Your task to perform on an android device: Go to sound settings Image 0: 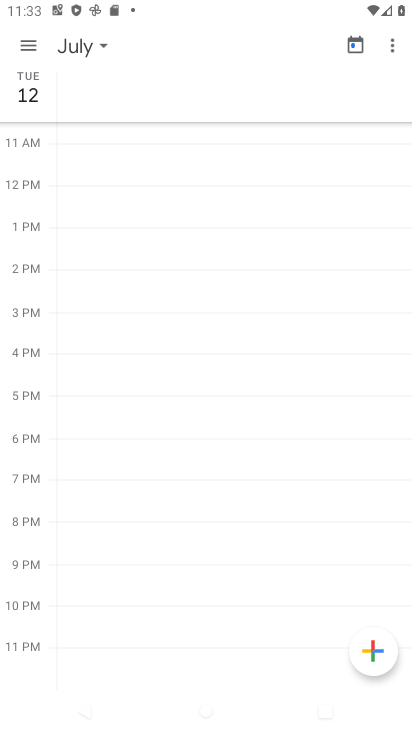
Step 0: press home button
Your task to perform on an android device: Go to sound settings Image 1: 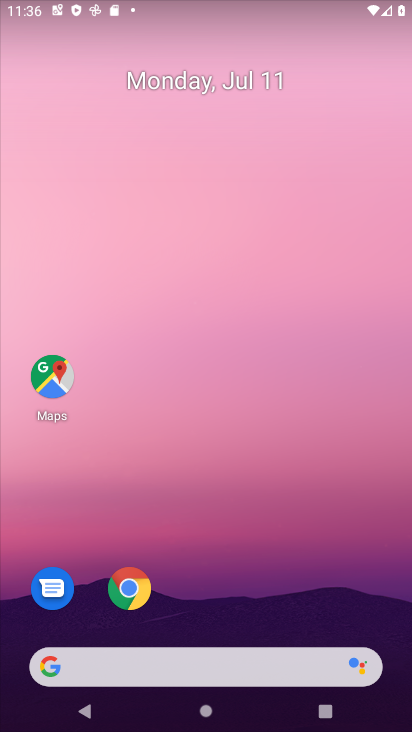
Step 1: drag from (120, 485) to (250, 15)
Your task to perform on an android device: Go to sound settings Image 2: 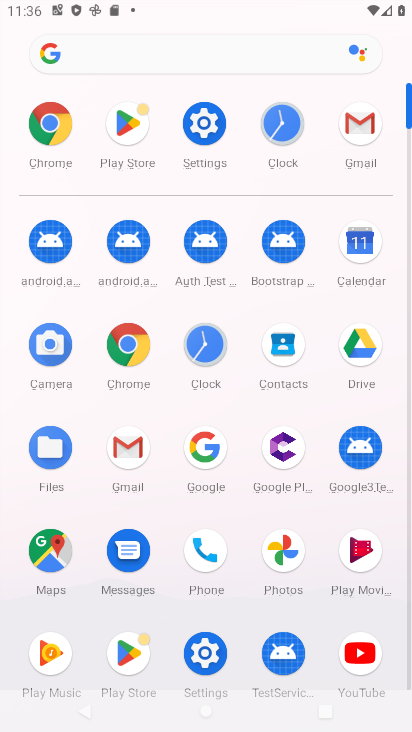
Step 2: click (216, 137)
Your task to perform on an android device: Go to sound settings Image 3: 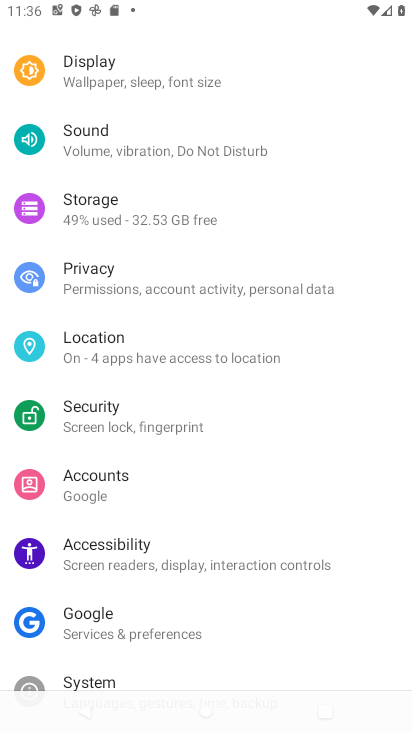
Step 3: click (131, 146)
Your task to perform on an android device: Go to sound settings Image 4: 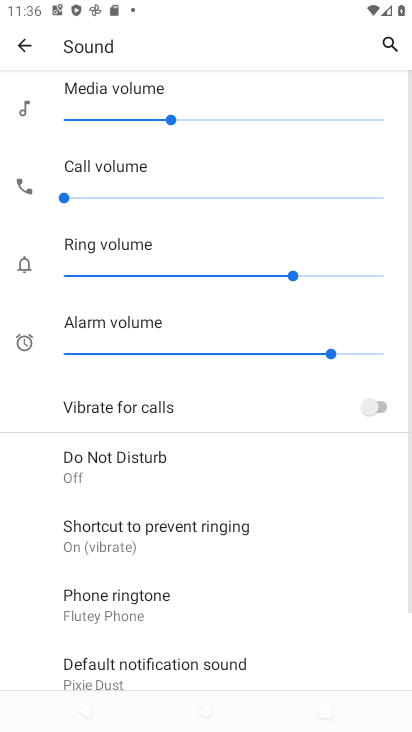
Step 4: task complete